Your task to perform on an android device: When is my next appointment? Image 0: 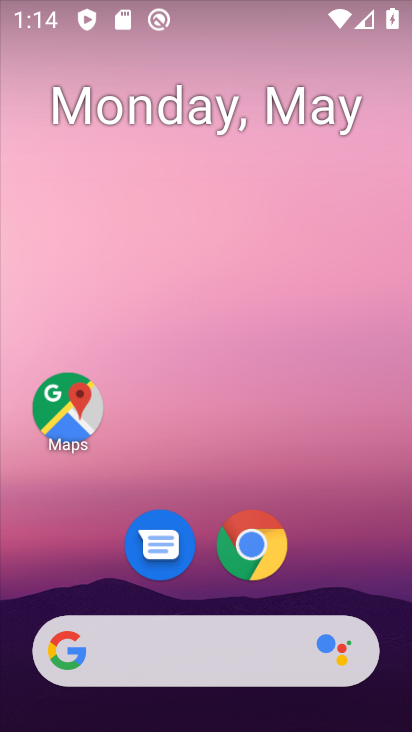
Step 0: drag from (248, 626) to (223, 158)
Your task to perform on an android device: When is my next appointment? Image 1: 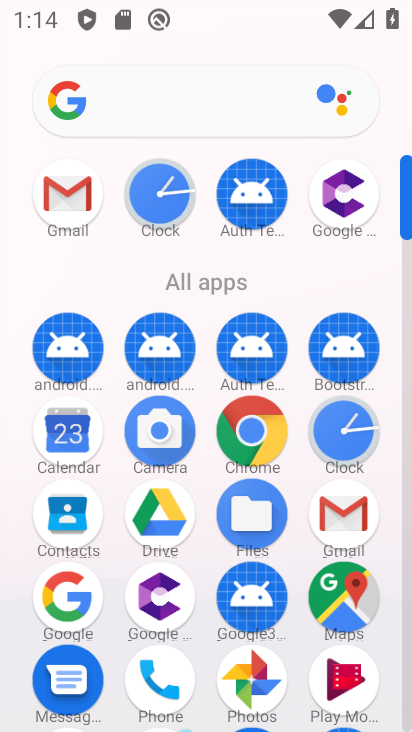
Step 1: click (33, 431)
Your task to perform on an android device: When is my next appointment? Image 2: 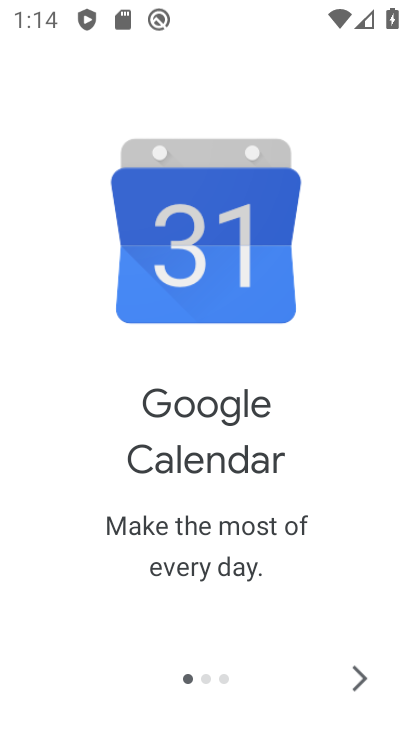
Step 2: click (355, 675)
Your task to perform on an android device: When is my next appointment? Image 3: 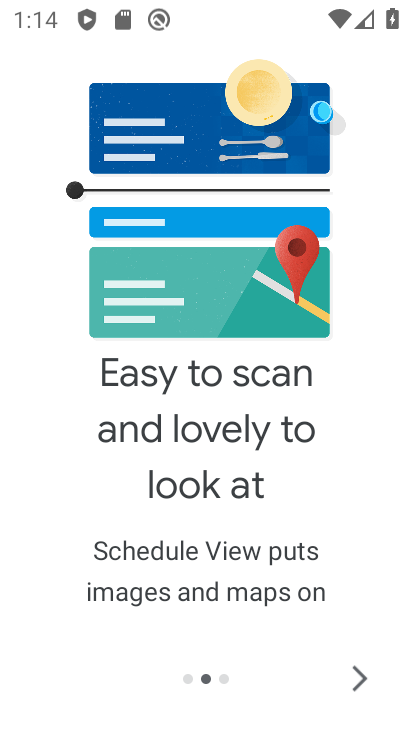
Step 3: click (355, 675)
Your task to perform on an android device: When is my next appointment? Image 4: 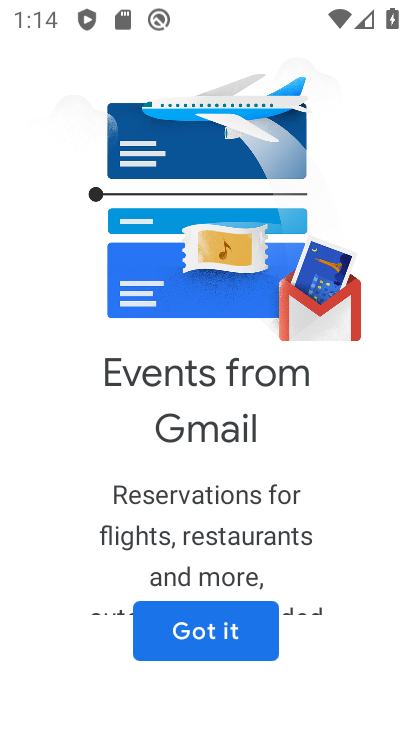
Step 4: click (217, 636)
Your task to perform on an android device: When is my next appointment? Image 5: 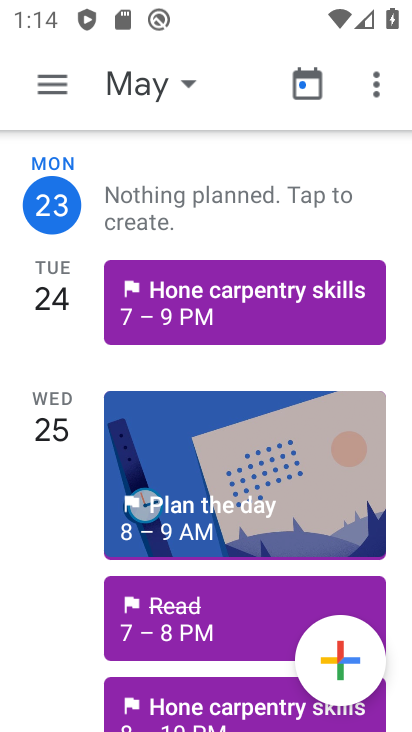
Step 5: click (47, 90)
Your task to perform on an android device: When is my next appointment? Image 6: 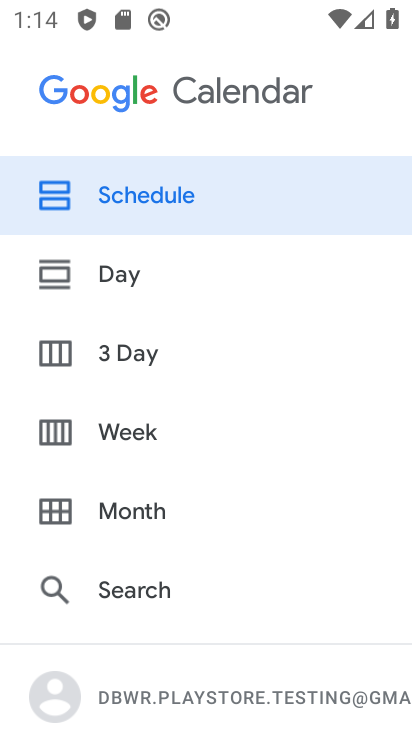
Step 6: click (144, 200)
Your task to perform on an android device: When is my next appointment? Image 7: 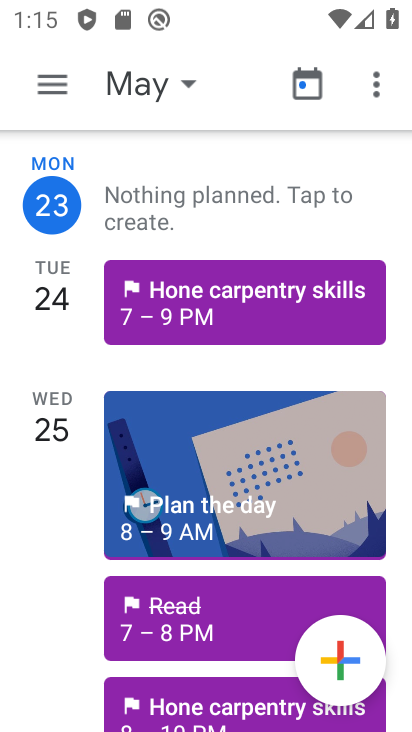
Step 7: task complete